Your task to perform on an android device: Go to Google maps Image 0: 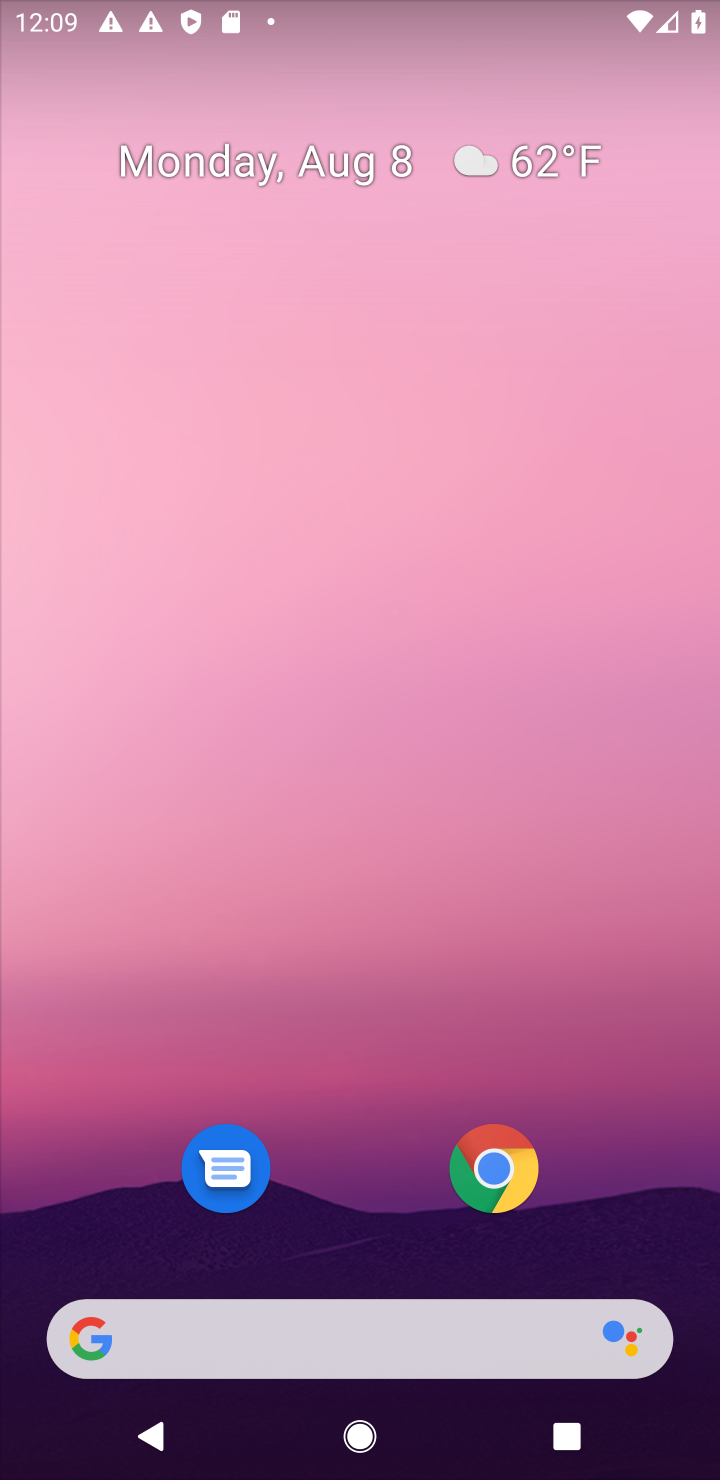
Step 0: drag from (421, 1284) to (351, 14)
Your task to perform on an android device: Go to Google maps Image 1: 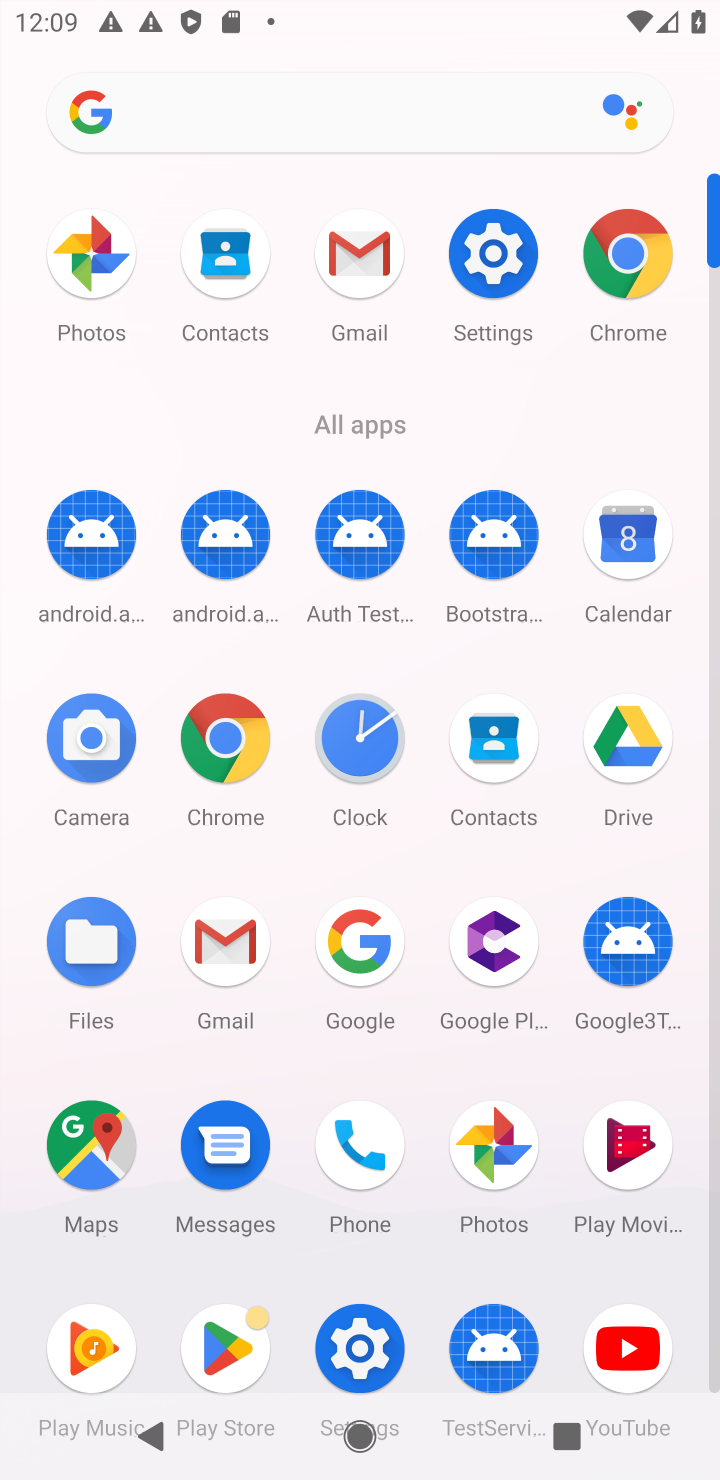
Step 1: click (92, 1198)
Your task to perform on an android device: Go to Google maps Image 2: 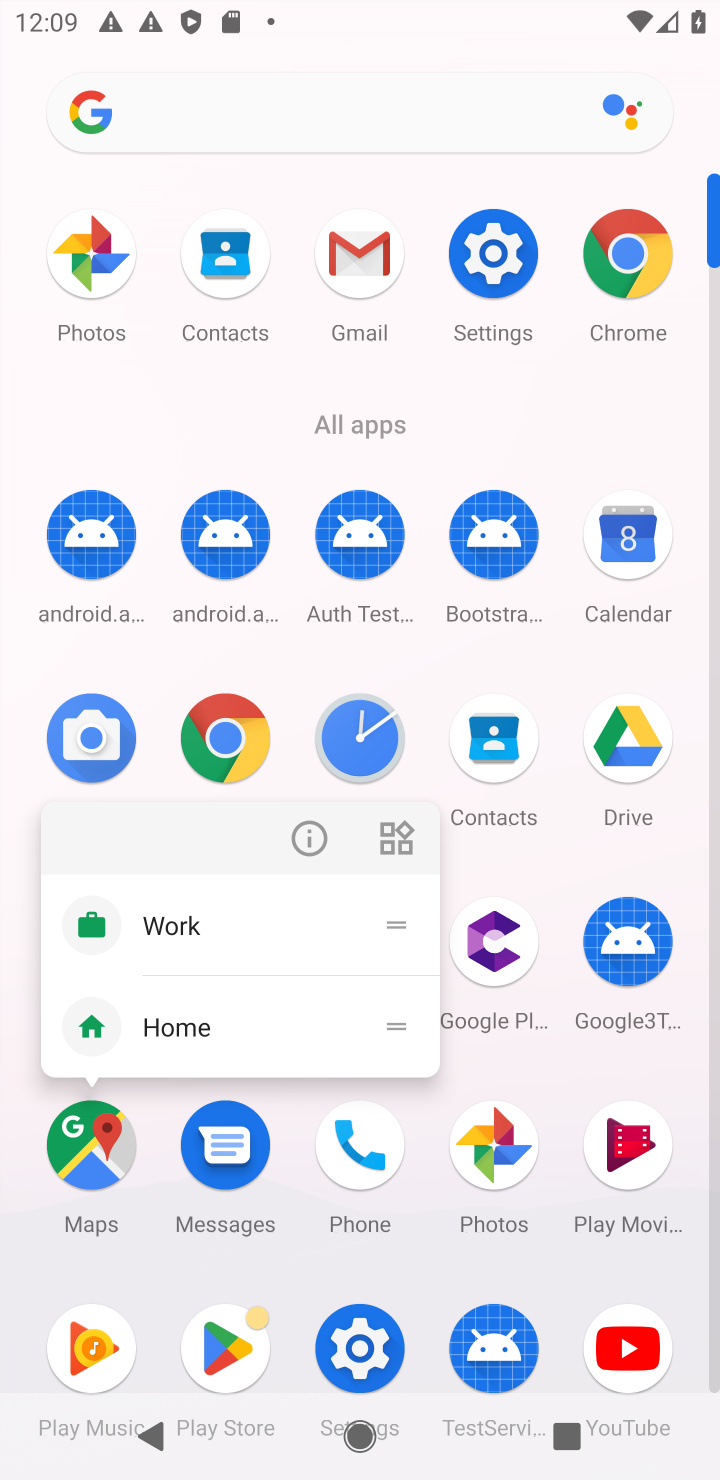
Step 2: click (137, 1185)
Your task to perform on an android device: Go to Google maps Image 3: 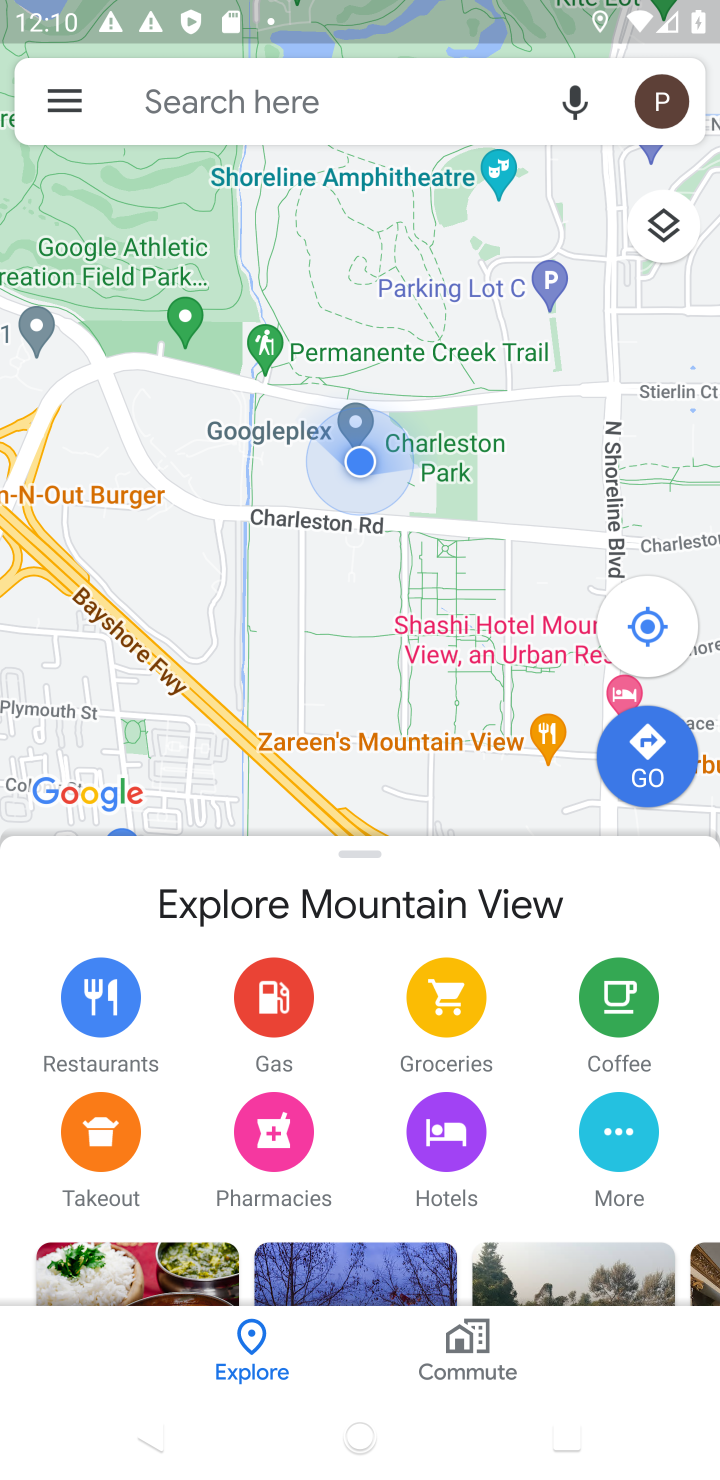
Step 3: task complete